Your task to perform on an android device: What's on my calendar today? Image 0: 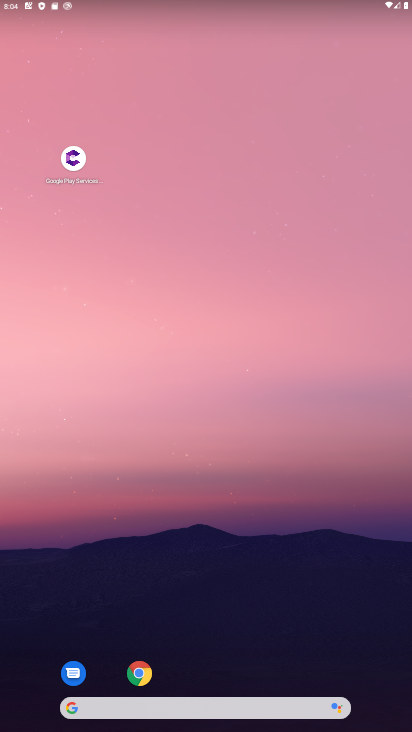
Step 0: press home button
Your task to perform on an android device: What's on my calendar today? Image 1: 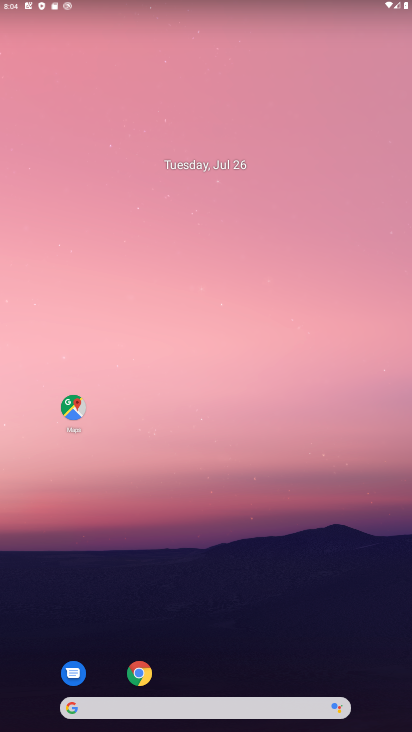
Step 1: drag from (253, 603) to (264, 0)
Your task to perform on an android device: What's on my calendar today? Image 2: 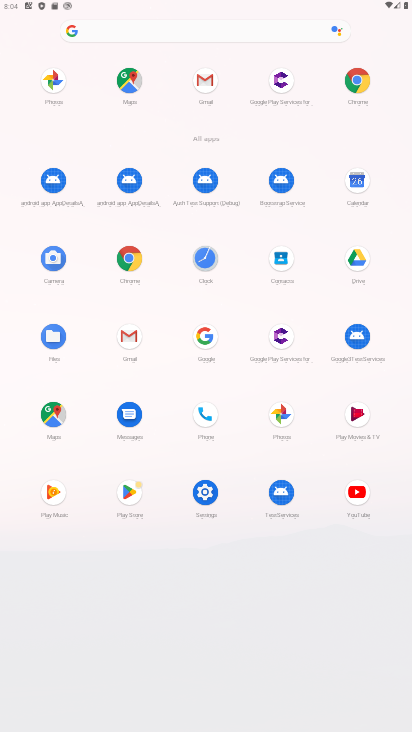
Step 2: click (370, 183)
Your task to perform on an android device: What's on my calendar today? Image 3: 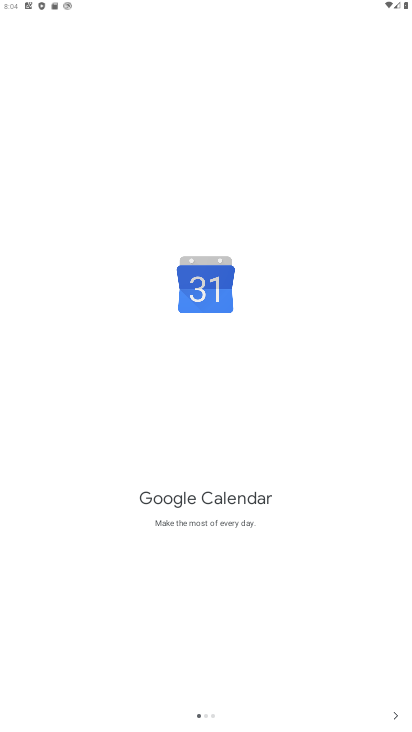
Step 3: click (394, 725)
Your task to perform on an android device: What's on my calendar today? Image 4: 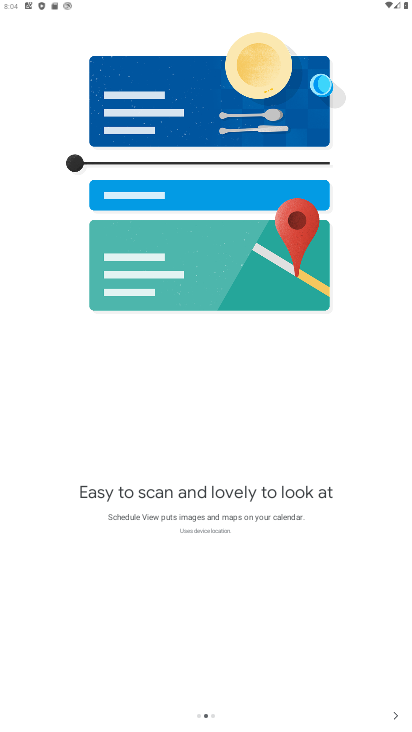
Step 4: click (394, 725)
Your task to perform on an android device: What's on my calendar today? Image 5: 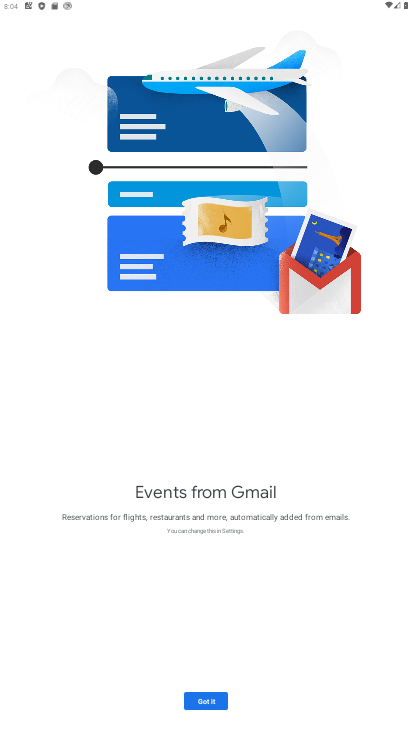
Step 5: click (203, 710)
Your task to perform on an android device: What's on my calendar today? Image 6: 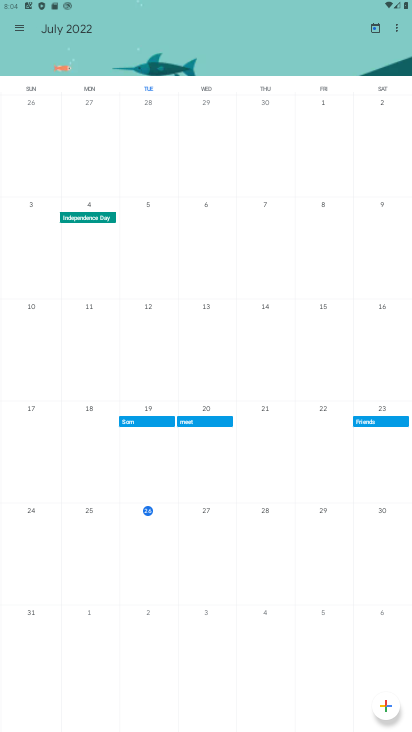
Step 6: click (222, 558)
Your task to perform on an android device: What's on my calendar today? Image 7: 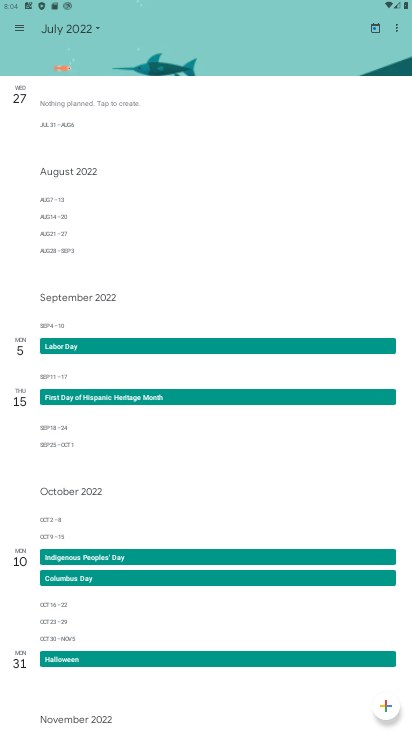
Step 7: task complete